Your task to perform on an android device: turn off wifi Image 0: 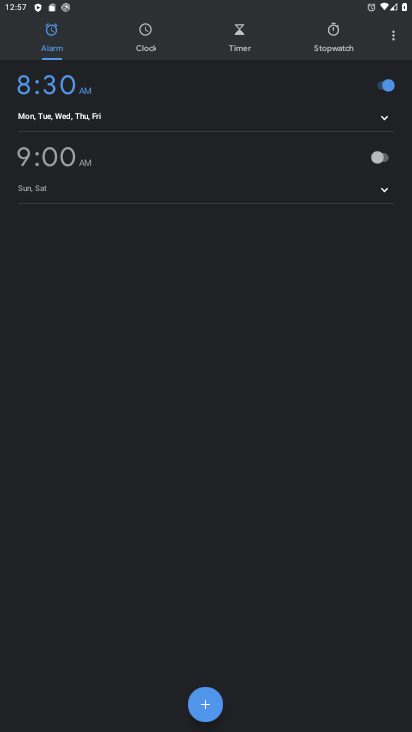
Step 0: press home button
Your task to perform on an android device: turn off wifi Image 1: 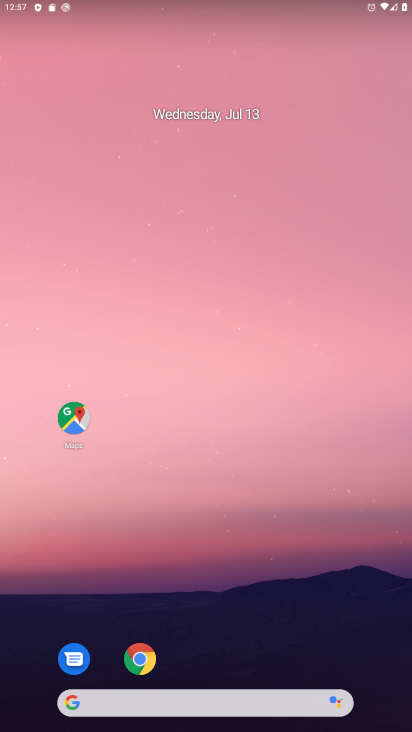
Step 1: drag from (47, 674) to (237, 0)
Your task to perform on an android device: turn off wifi Image 2: 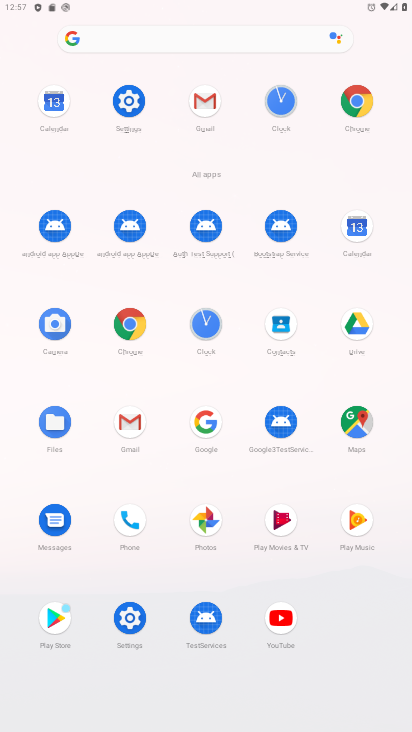
Step 2: click (121, 621)
Your task to perform on an android device: turn off wifi Image 3: 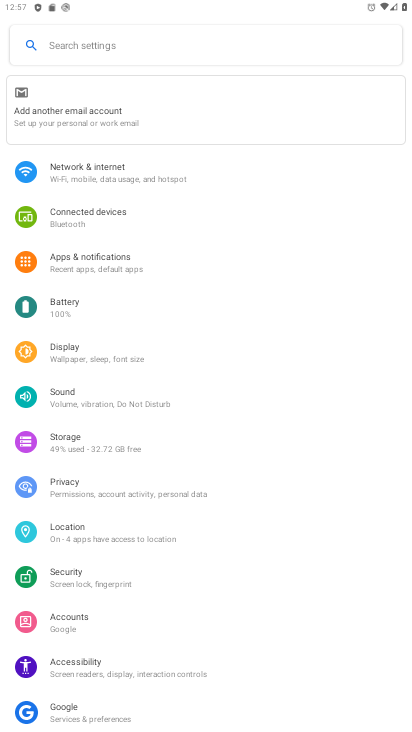
Step 3: click (134, 180)
Your task to perform on an android device: turn off wifi Image 4: 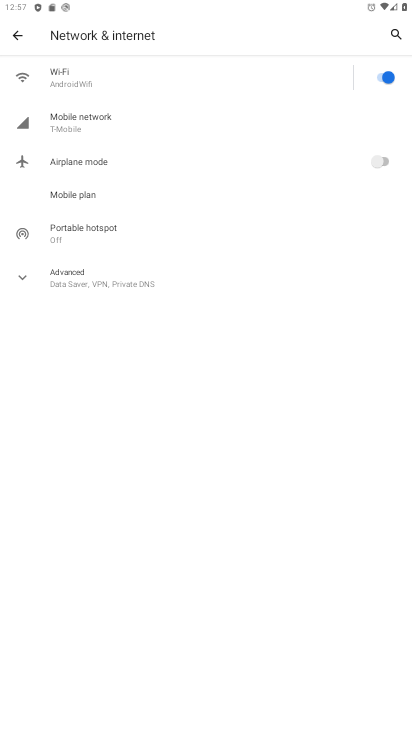
Step 4: click (385, 68)
Your task to perform on an android device: turn off wifi Image 5: 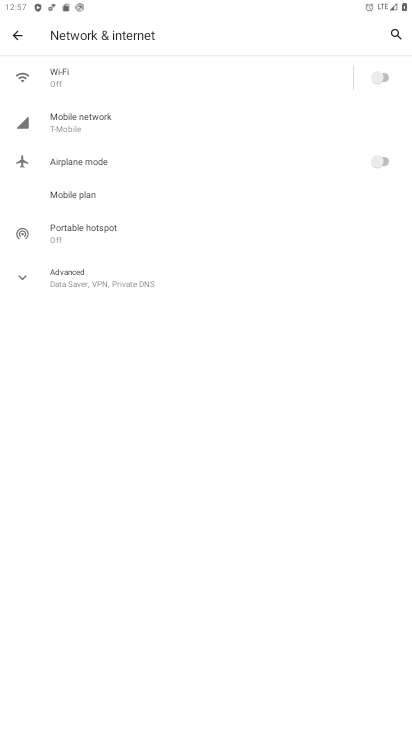
Step 5: task complete